Your task to perform on an android device: turn pop-ups off in chrome Image 0: 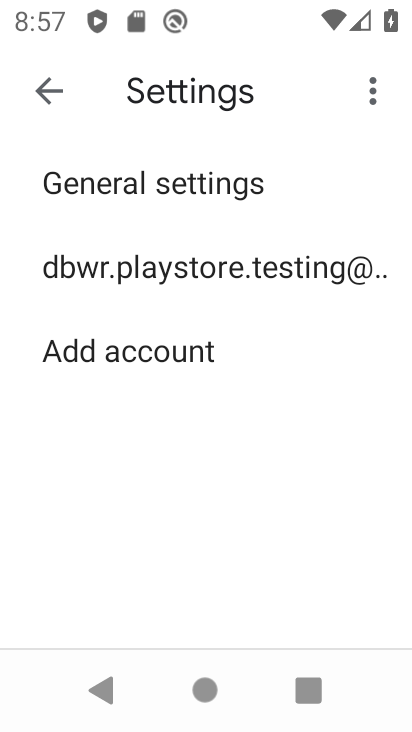
Step 0: press home button
Your task to perform on an android device: turn pop-ups off in chrome Image 1: 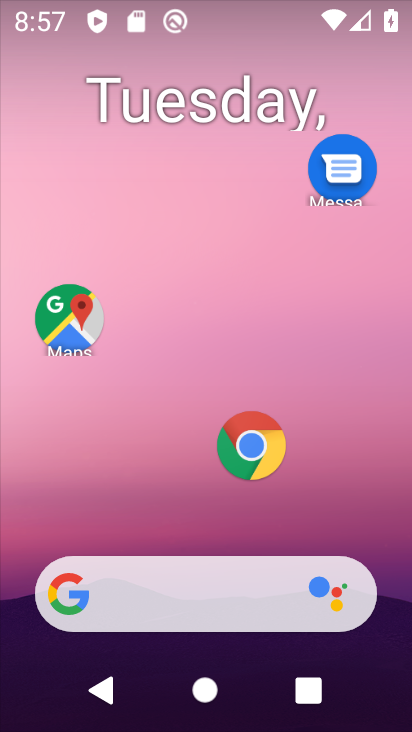
Step 1: click (235, 457)
Your task to perform on an android device: turn pop-ups off in chrome Image 2: 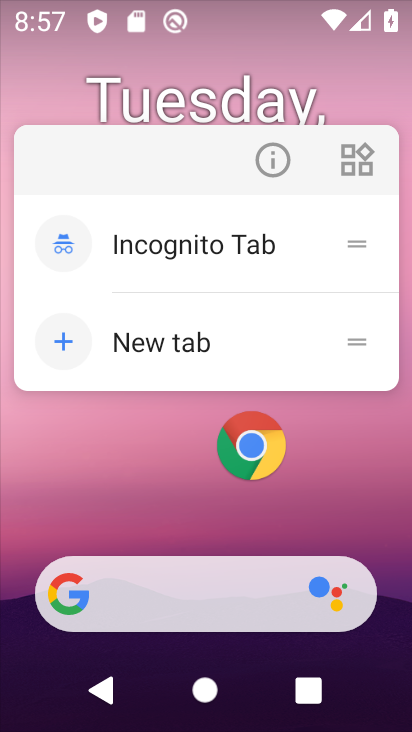
Step 2: click (251, 427)
Your task to perform on an android device: turn pop-ups off in chrome Image 3: 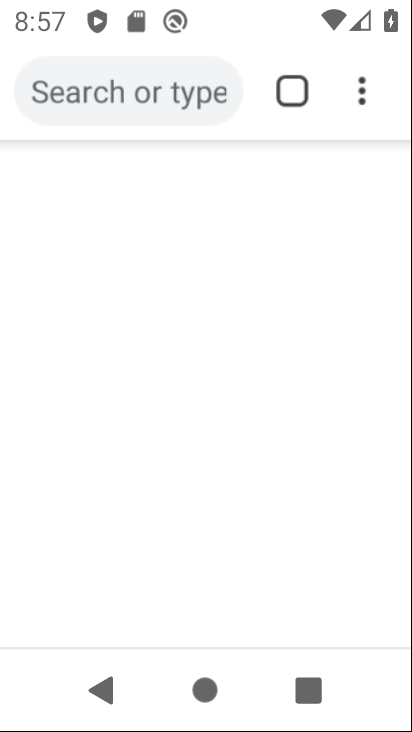
Step 3: click (247, 447)
Your task to perform on an android device: turn pop-ups off in chrome Image 4: 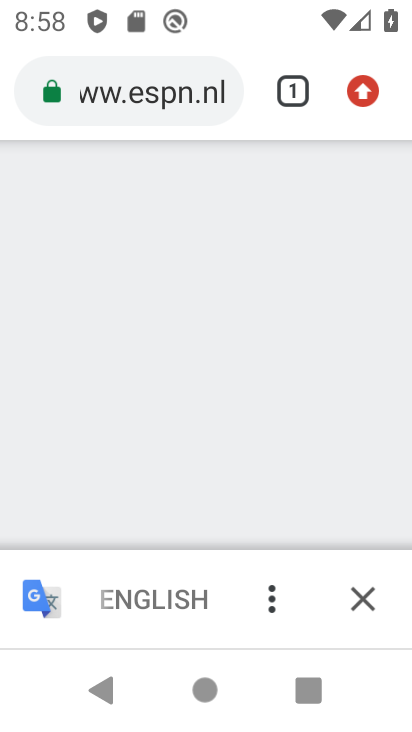
Step 4: press back button
Your task to perform on an android device: turn pop-ups off in chrome Image 5: 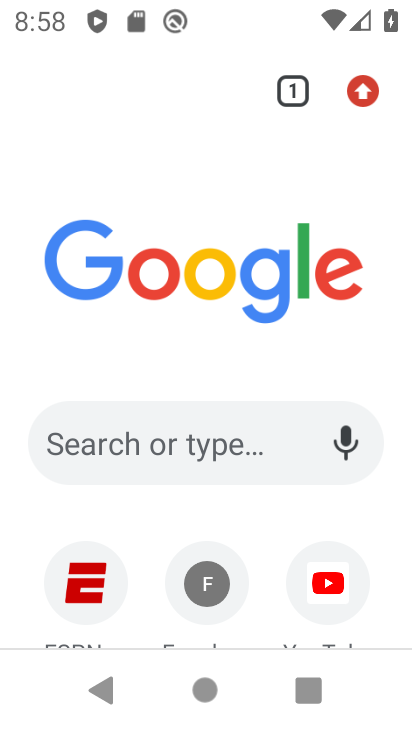
Step 5: drag from (81, 122) to (76, 378)
Your task to perform on an android device: turn pop-ups off in chrome Image 6: 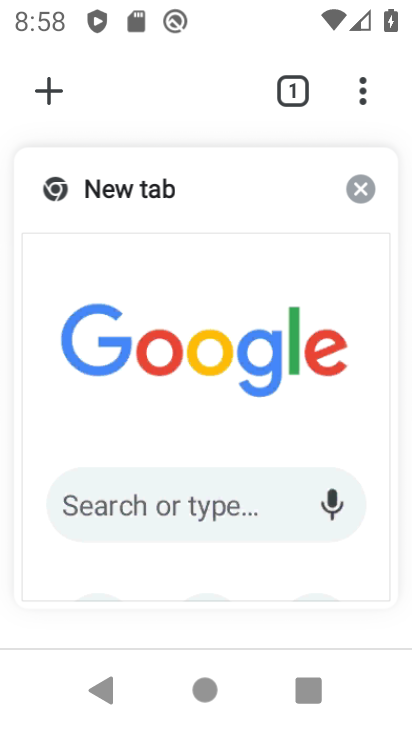
Step 6: click (226, 253)
Your task to perform on an android device: turn pop-ups off in chrome Image 7: 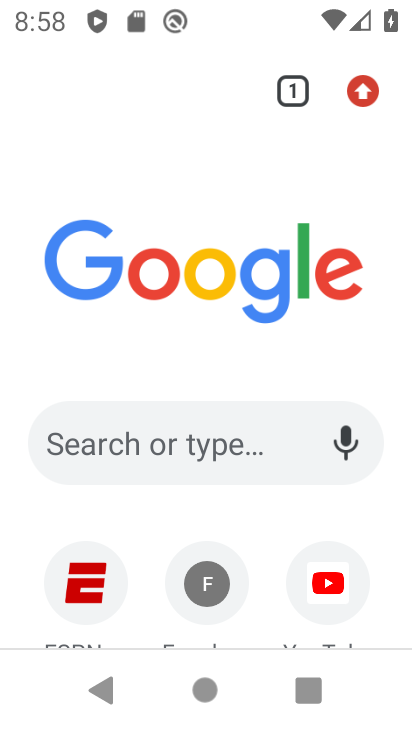
Step 7: drag from (117, 182) to (174, 528)
Your task to perform on an android device: turn pop-ups off in chrome Image 8: 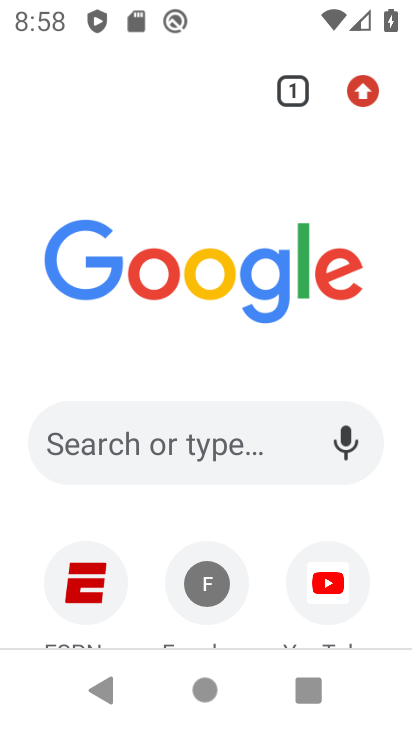
Step 8: click (214, 356)
Your task to perform on an android device: turn pop-ups off in chrome Image 9: 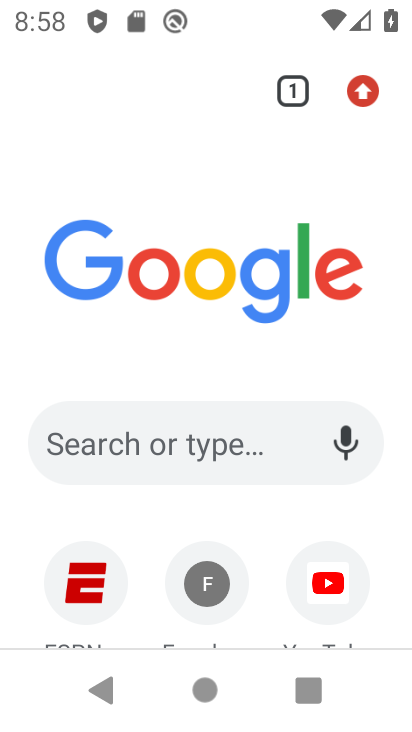
Step 9: drag from (289, 94) to (267, 278)
Your task to perform on an android device: turn pop-ups off in chrome Image 10: 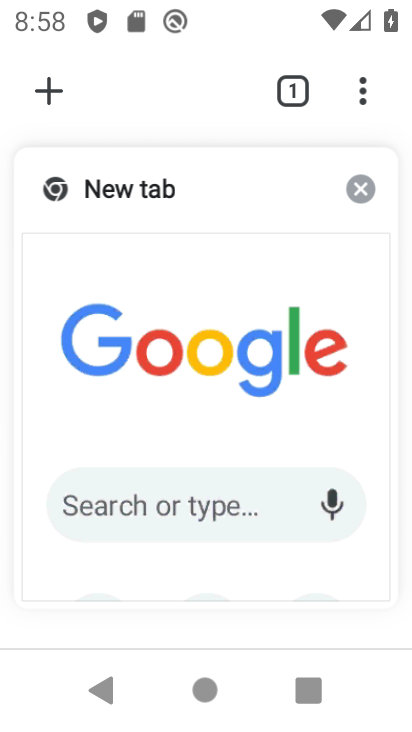
Step 10: click (363, 89)
Your task to perform on an android device: turn pop-ups off in chrome Image 11: 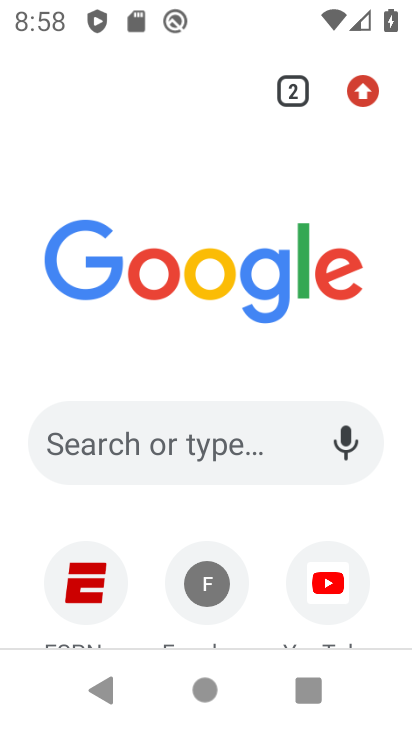
Step 11: click (281, 91)
Your task to perform on an android device: turn pop-ups off in chrome Image 12: 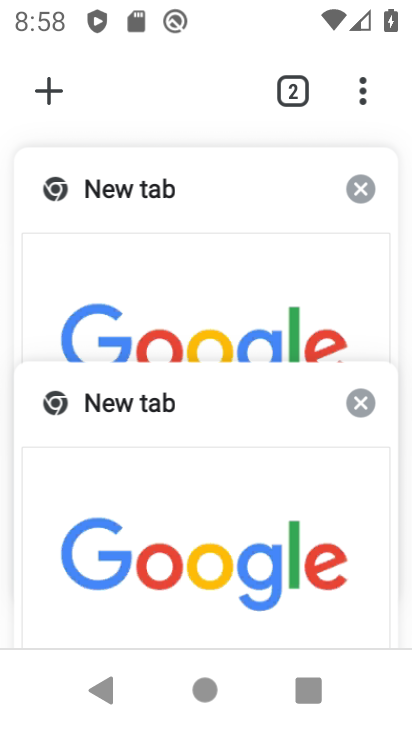
Step 12: click (352, 85)
Your task to perform on an android device: turn pop-ups off in chrome Image 13: 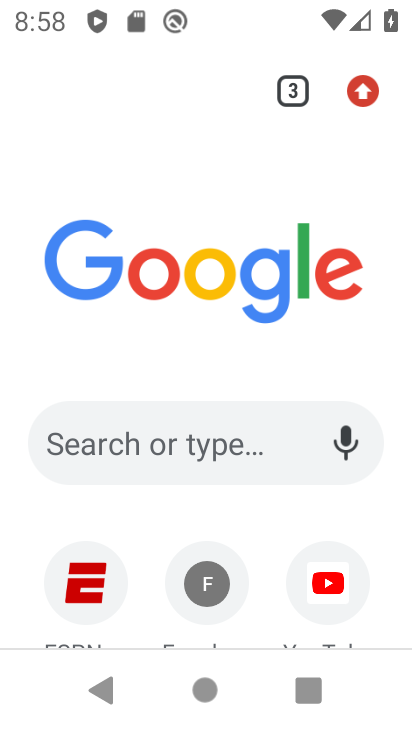
Step 13: click (295, 104)
Your task to perform on an android device: turn pop-ups off in chrome Image 14: 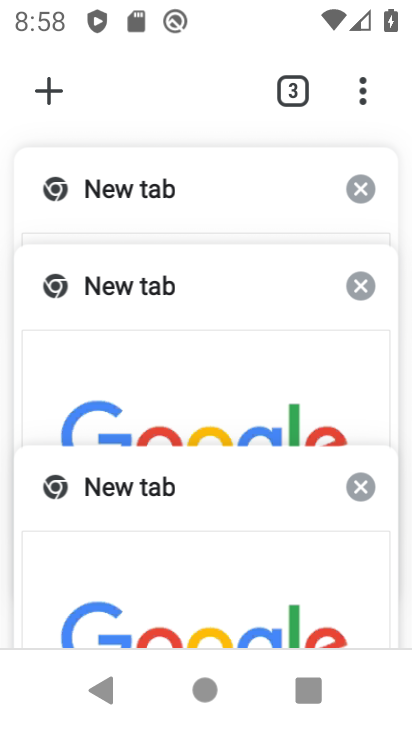
Step 14: click (371, 193)
Your task to perform on an android device: turn pop-ups off in chrome Image 15: 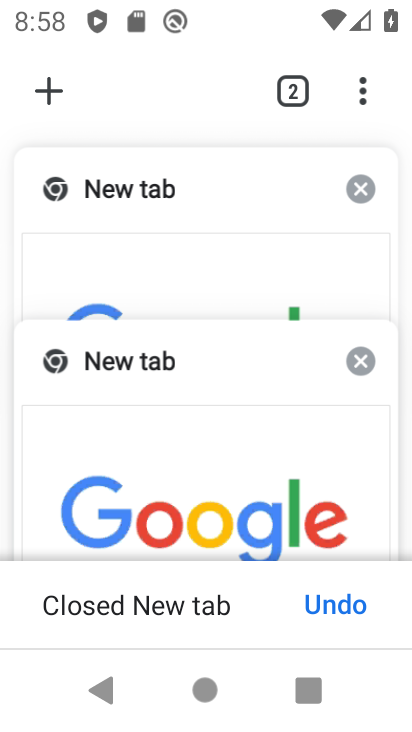
Step 15: click (354, 88)
Your task to perform on an android device: turn pop-ups off in chrome Image 16: 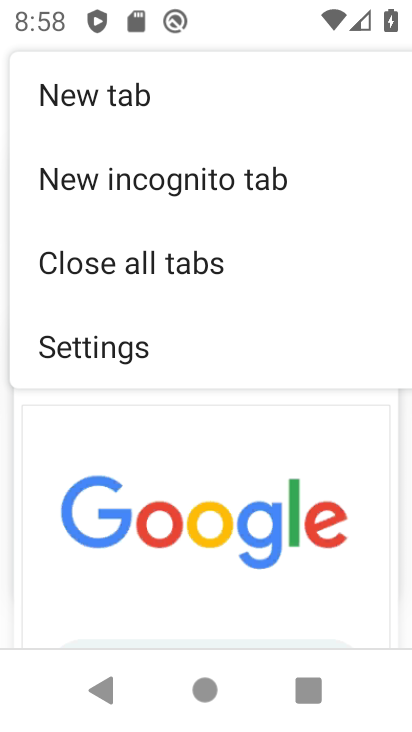
Step 16: click (150, 341)
Your task to perform on an android device: turn pop-ups off in chrome Image 17: 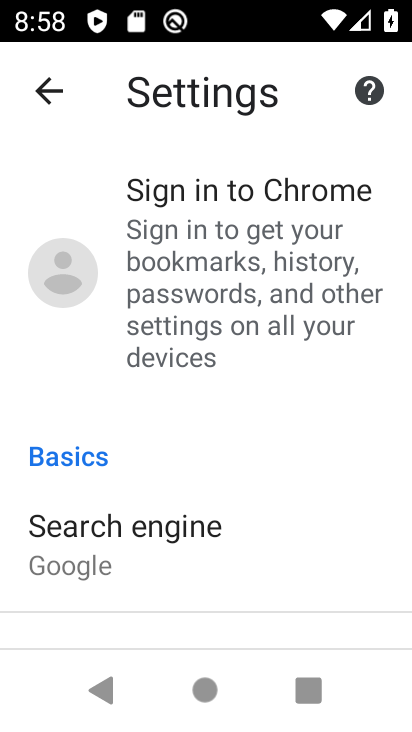
Step 17: drag from (125, 544) to (273, 255)
Your task to perform on an android device: turn pop-ups off in chrome Image 18: 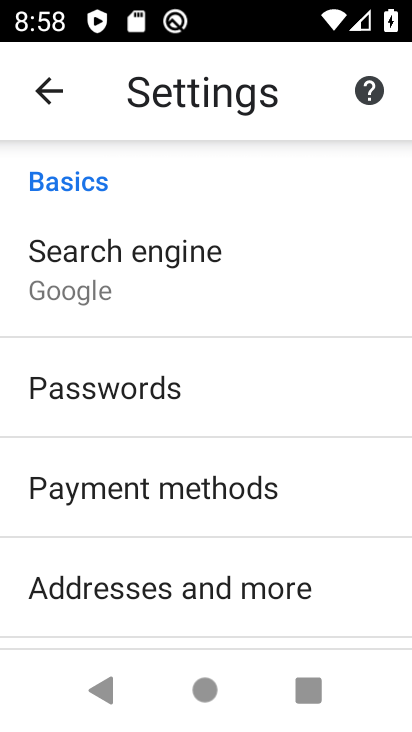
Step 18: drag from (6, 600) to (113, 312)
Your task to perform on an android device: turn pop-ups off in chrome Image 19: 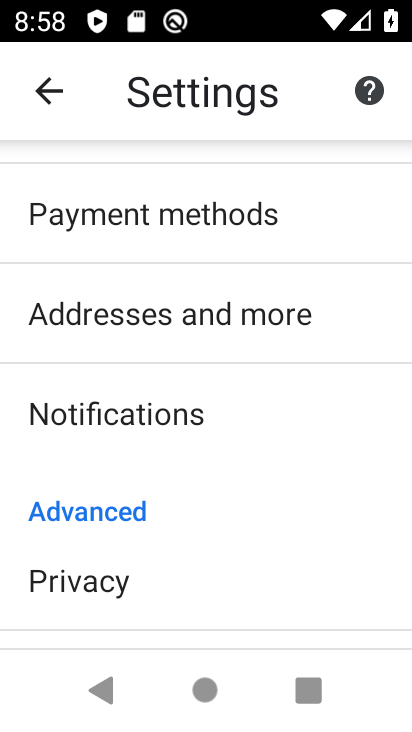
Step 19: drag from (56, 527) to (194, 302)
Your task to perform on an android device: turn pop-ups off in chrome Image 20: 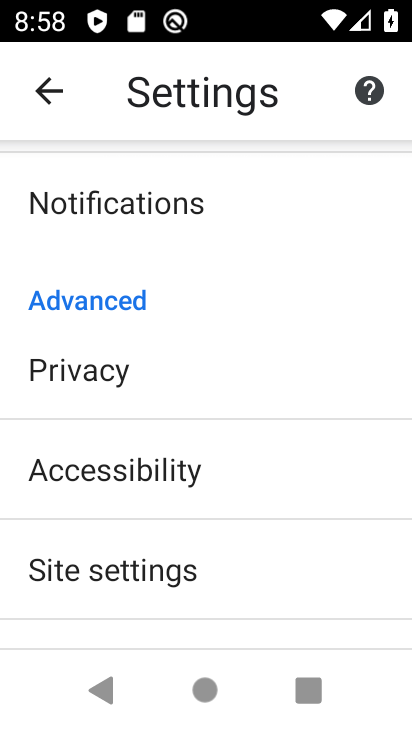
Step 20: click (128, 557)
Your task to perform on an android device: turn pop-ups off in chrome Image 21: 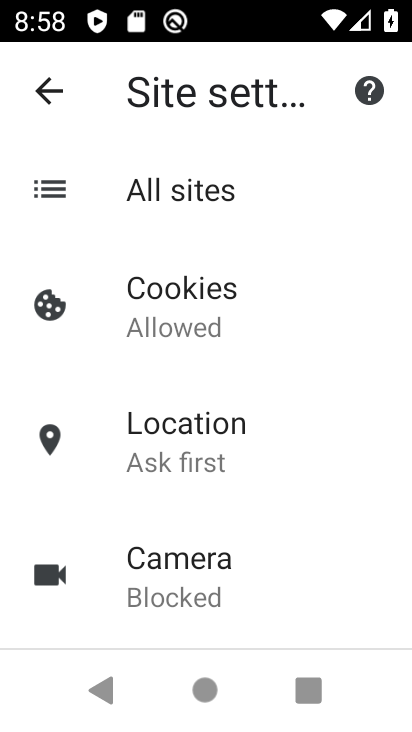
Step 21: drag from (32, 565) to (168, 322)
Your task to perform on an android device: turn pop-ups off in chrome Image 22: 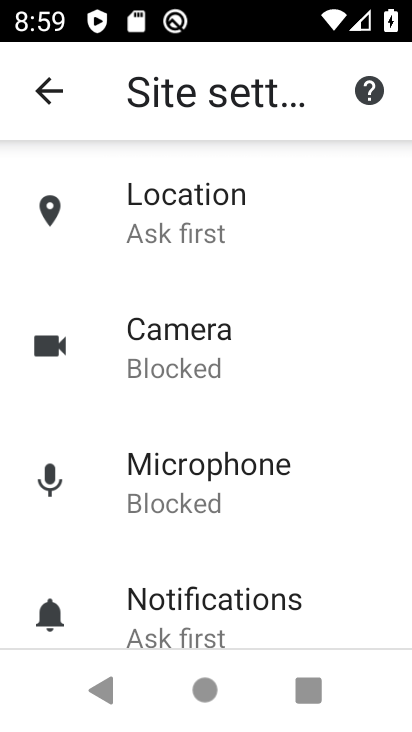
Step 22: drag from (18, 562) to (149, 265)
Your task to perform on an android device: turn pop-ups off in chrome Image 23: 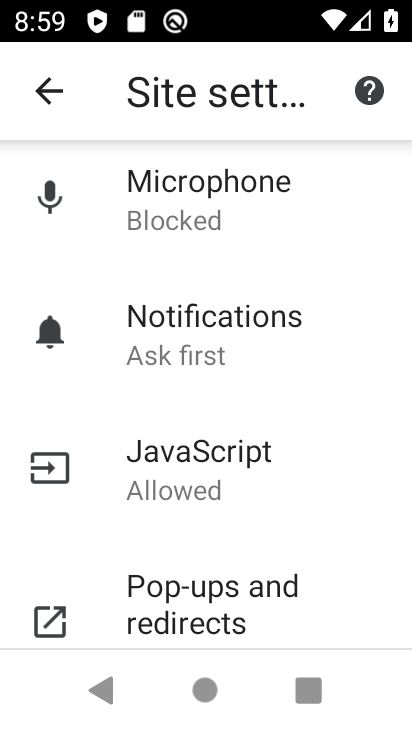
Step 23: click (144, 615)
Your task to perform on an android device: turn pop-ups off in chrome Image 24: 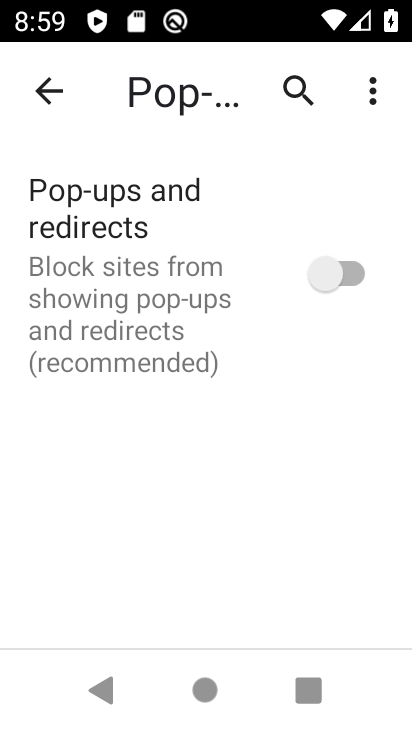
Step 24: task complete